Your task to perform on an android device: empty trash in google photos Image 0: 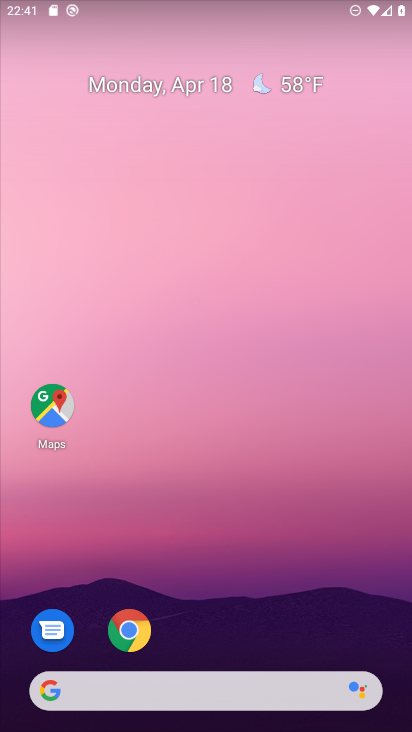
Step 0: drag from (218, 664) to (193, 33)
Your task to perform on an android device: empty trash in google photos Image 1: 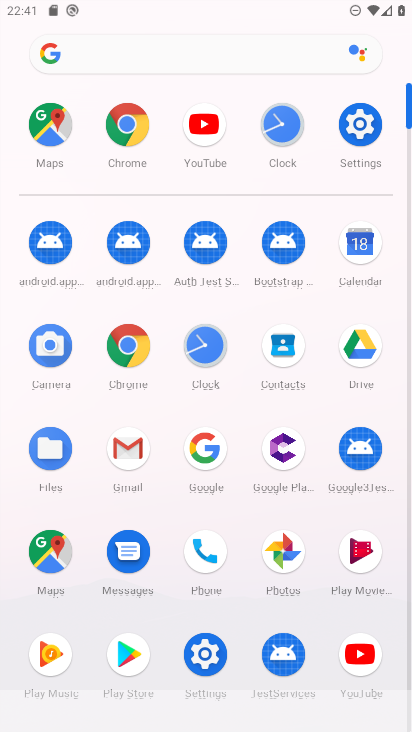
Step 1: click (296, 543)
Your task to perform on an android device: empty trash in google photos Image 2: 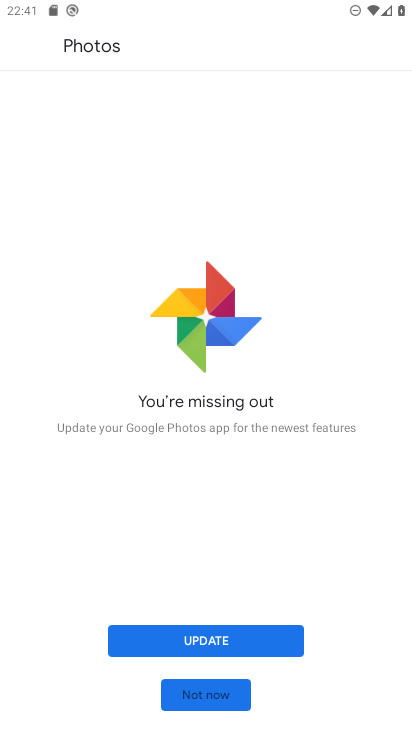
Step 2: click (214, 678)
Your task to perform on an android device: empty trash in google photos Image 3: 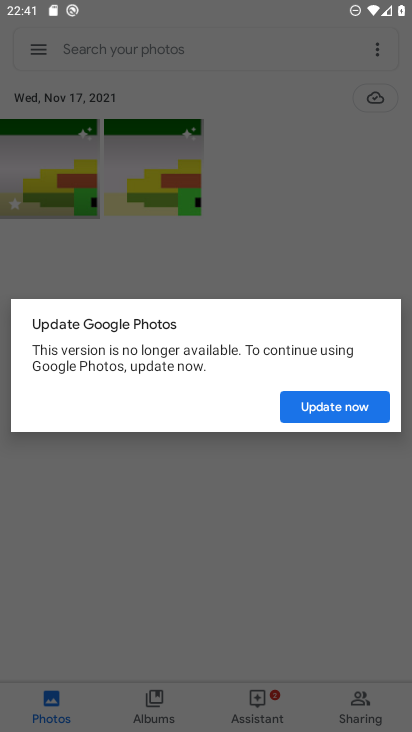
Step 3: click (322, 410)
Your task to perform on an android device: empty trash in google photos Image 4: 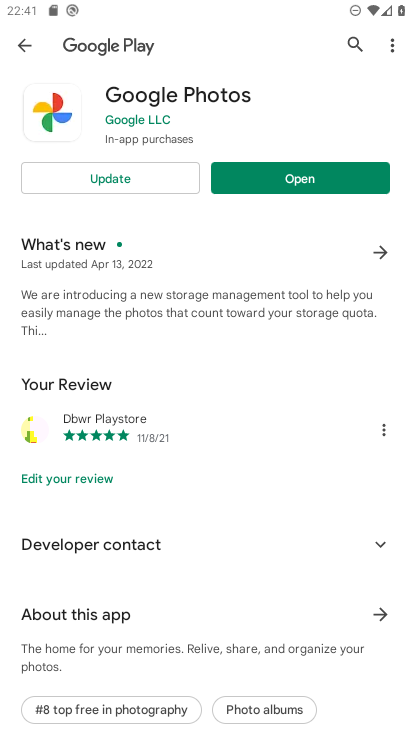
Step 4: click (301, 174)
Your task to perform on an android device: empty trash in google photos Image 5: 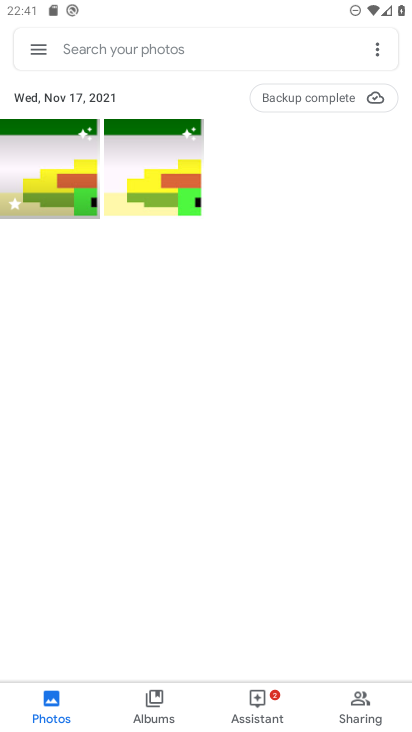
Step 5: click (23, 43)
Your task to perform on an android device: empty trash in google photos Image 6: 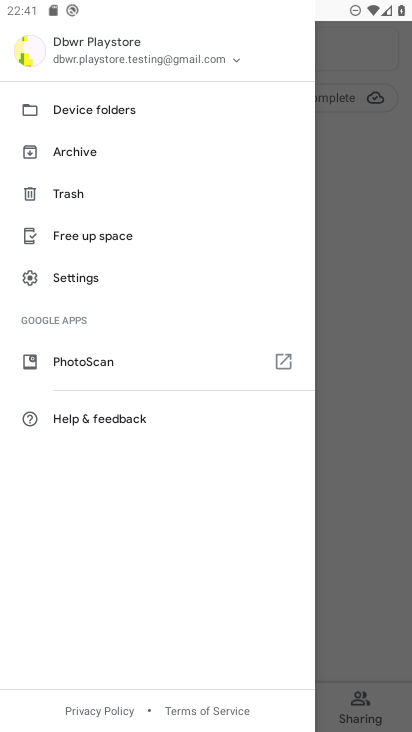
Step 6: click (76, 190)
Your task to perform on an android device: empty trash in google photos Image 7: 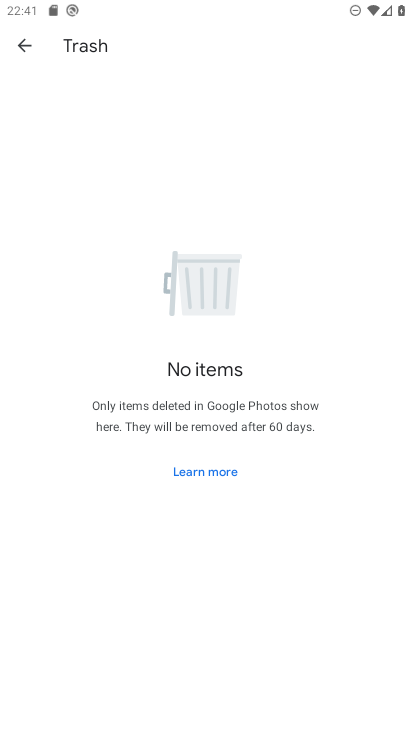
Step 7: task complete